Your task to perform on an android device: Open calendar and show me the fourth week of next month Image 0: 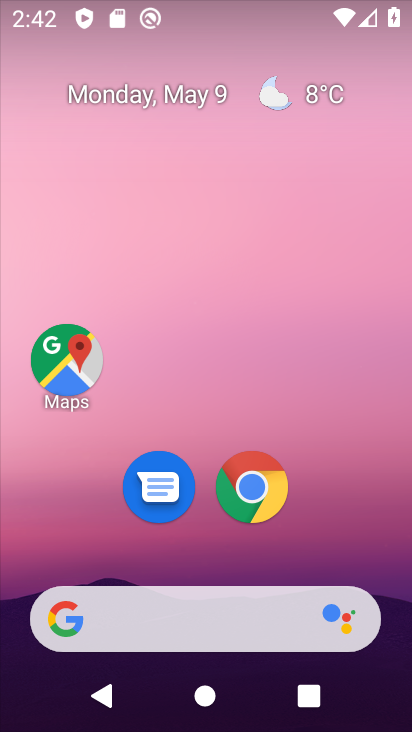
Step 0: drag from (205, 563) to (170, 99)
Your task to perform on an android device: Open calendar and show me the fourth week of next month Image 1: 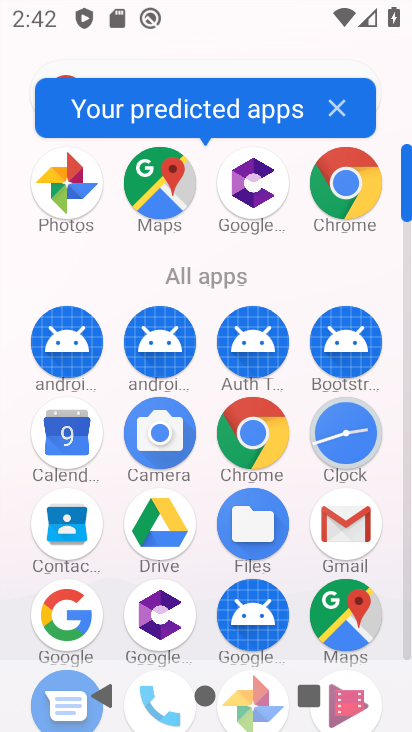
Step 1: click (63, 433)
Your task to perform on an android device: Open calendar and show me the fourth week of next month Image 2: 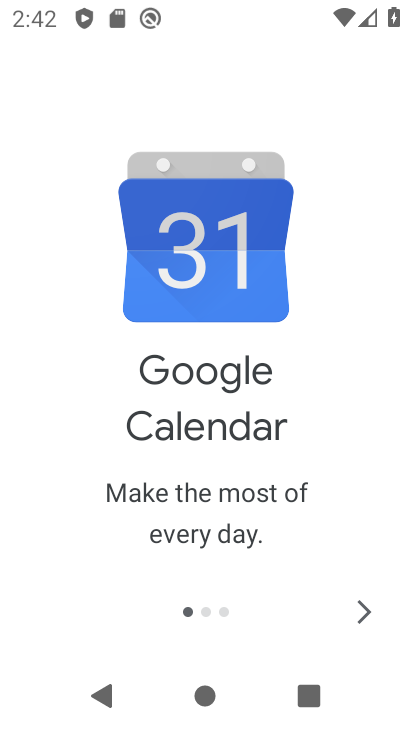
Step 2: click (356, 608)
Your task to perform on an android device: Open calendar and show me the fourth week of next month Image 3: 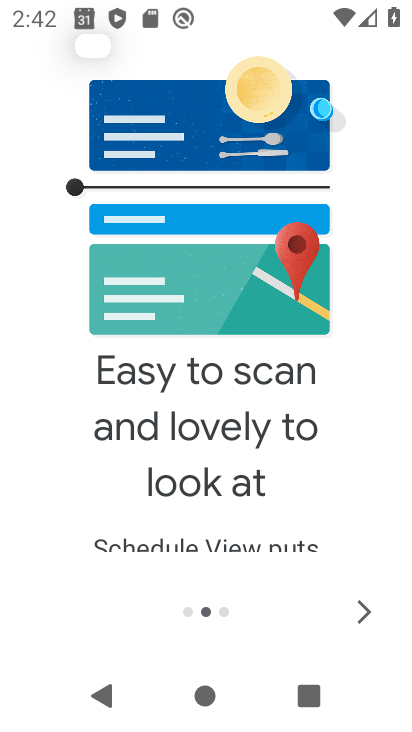
Step 3: click (361, 605)
Your task to perform on an android device: Open calendar and show me the fourth week of next month Image 4: 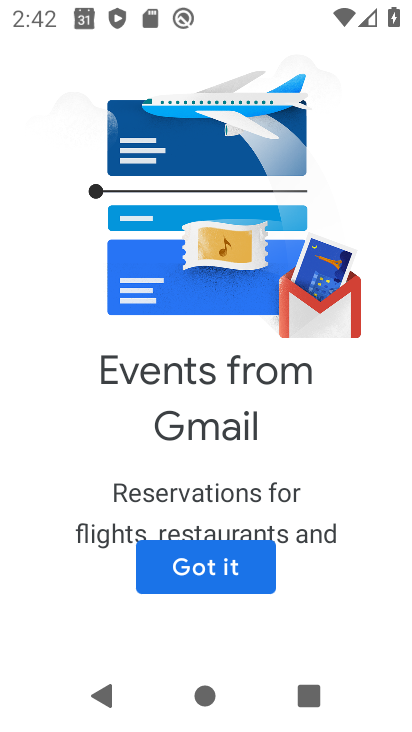
Step 4: click (208, 564)
Your task to perform on an android device: Open calendar and show me the fourth week of next month Image 5: 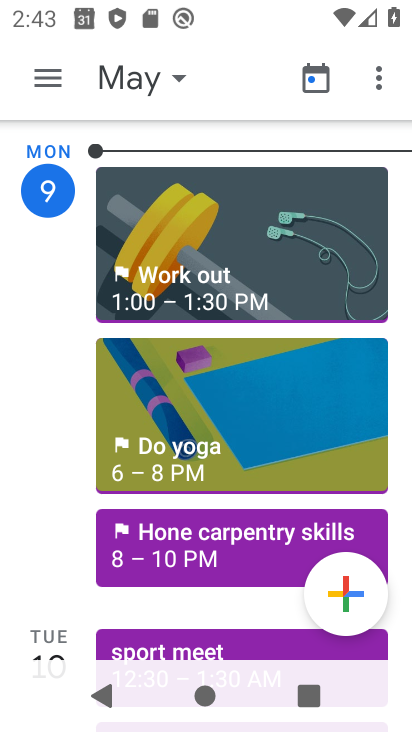
Step 5: click (42, 76)
Your task to perform on an android device: Open calendar and show me the fourth week of next month Image 6: 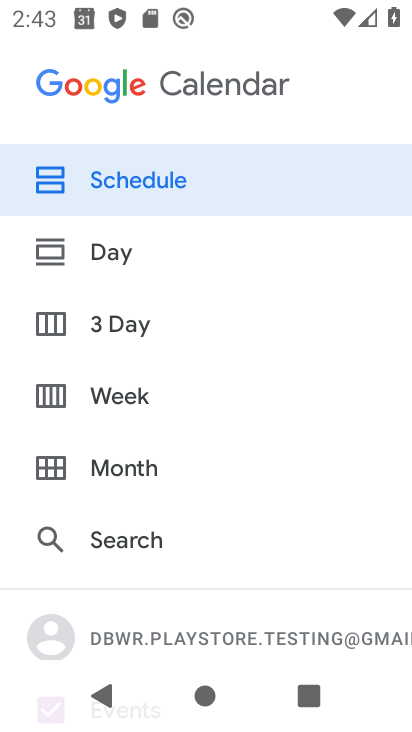
Step 6: click (153, 391)
Your task to perform on an android device: Open calendar and show me the fourth week of next month Image 7: 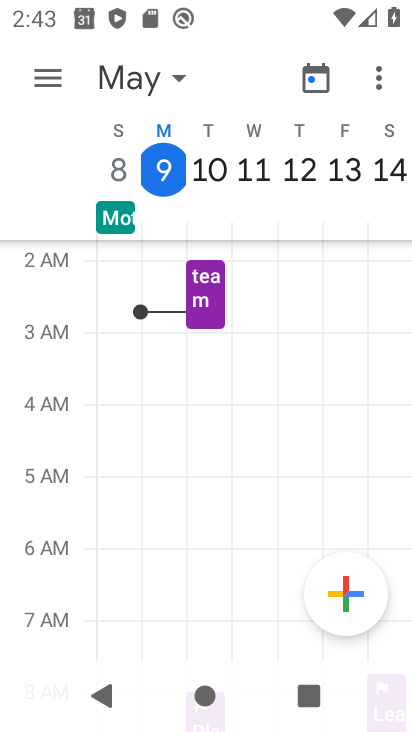
Step 7: drag from (394, 159) to (0, 165)
Your task to perform on an android device: Open calendar and show me the fourth week of next month Image 8: 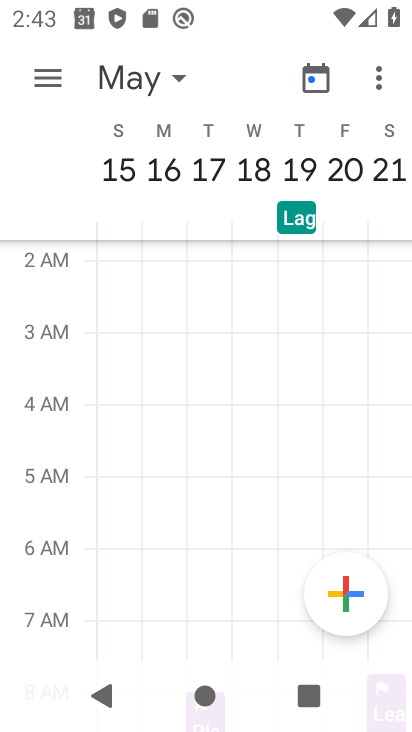
Step 8: drag from (378, 161) to (1, 200)
Your task to perform on an android device: Open calendar and show me the fourth week of next month Image 9: 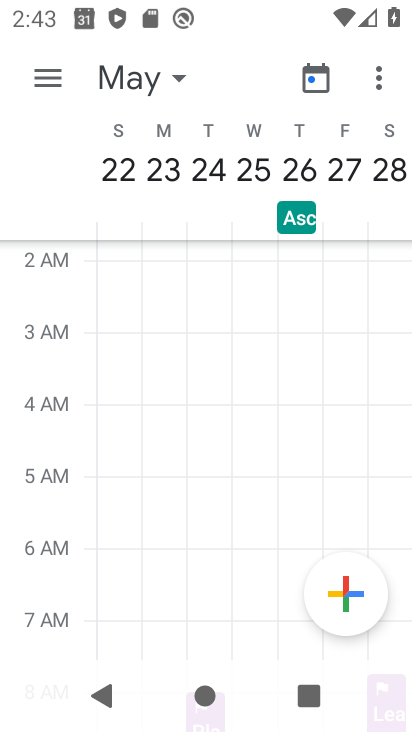
Step 9: drag from (385, 163) to (9, 169)
Your task to perform on an android device: Open calendar and show me the fourth week of next month Image 10: 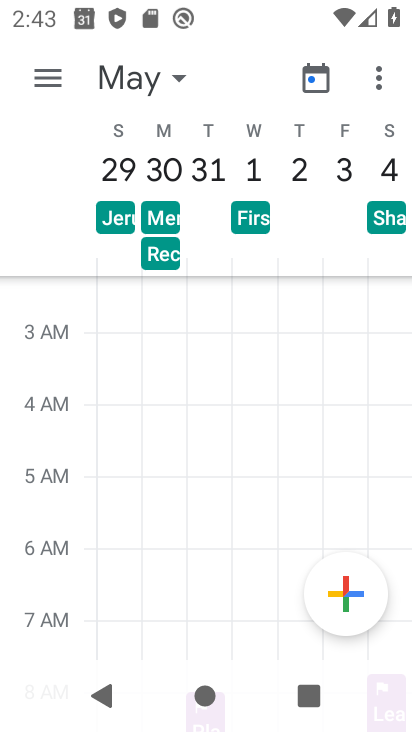
Step 10: drag from (378, 164) to (52, 189)
Your task to perform on an android device: Open calendar and show me the fourth week of next month Image 11: 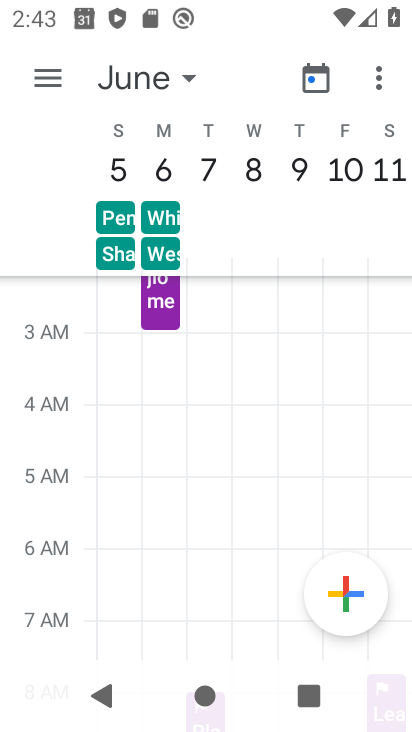
Step 11: drag from (394, 173) to (70, 181)
Your task to perform on an android device: Open calendar and show me the fourth week of next month Image 12: 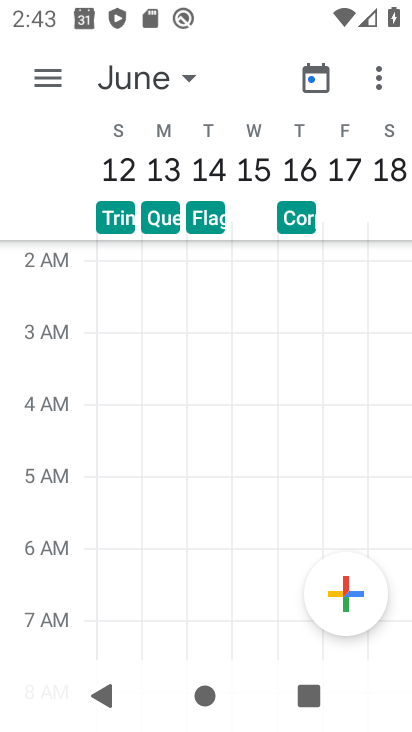
Step 12: drag from (378, 161) to (98, 166)
Your task to perform on an android device: Open calendar and show me the fourth week of next month Image 13: 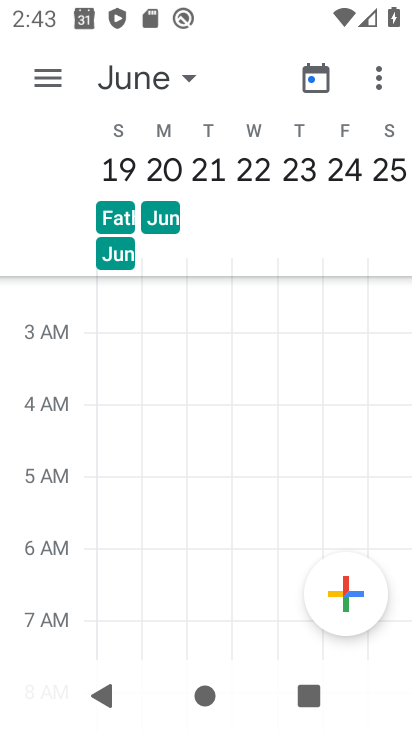
Step 13: click (116, 160)
Your task to perform on an android device: Open calendar and show me the fourth week of next month Image 14: 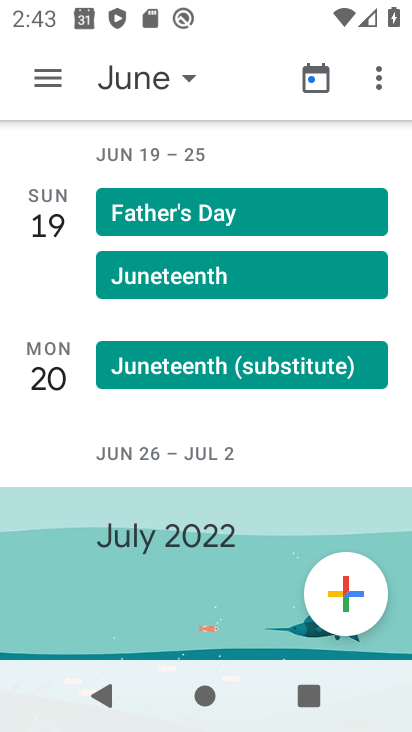
Step 14: task complete